Your task to perform on an android device: open app "Upside-Cash back on gas & food" Image 0: 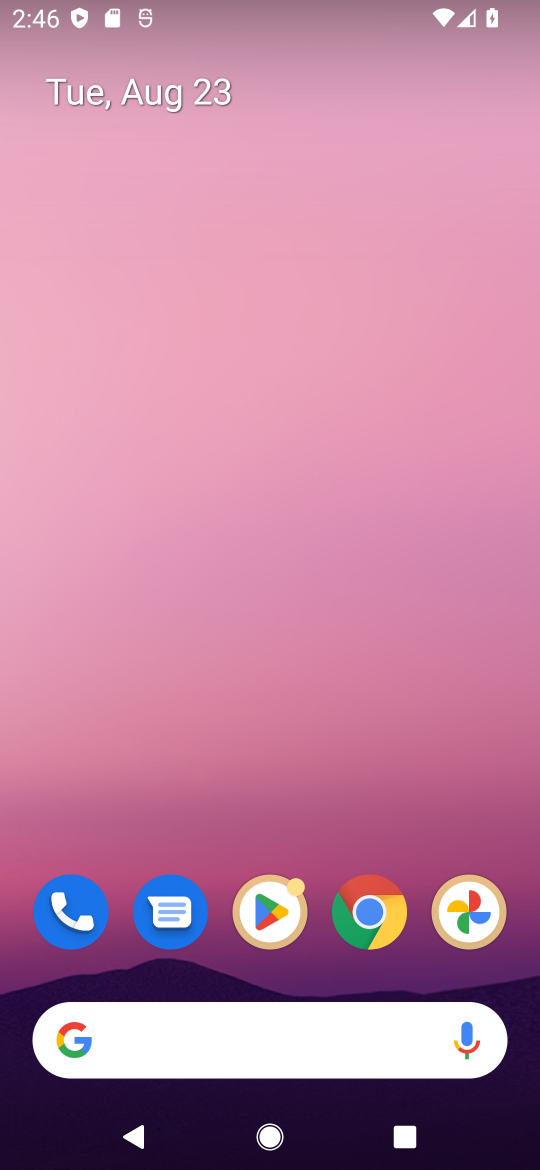
Step 0: drag from (195, 1054) to (295, 196)
Your task to perform on an android device: open app "Upside-Cash back on gas & food" Image 1: 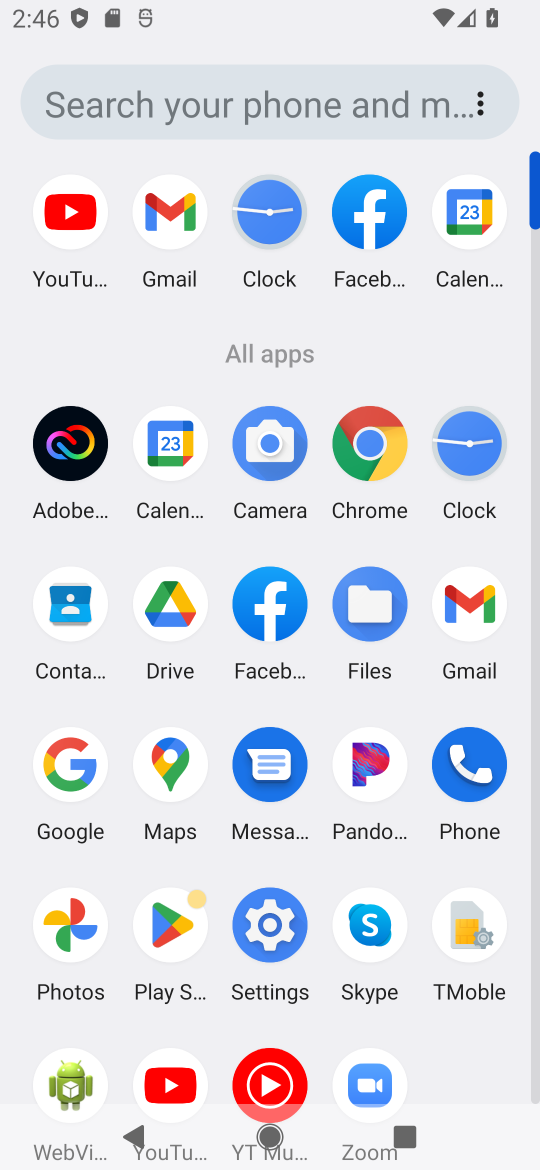
Step 1: click (175, 923)
Your task to perform on an android device: open app "Upside-Cash back on gas & food" Image 2: 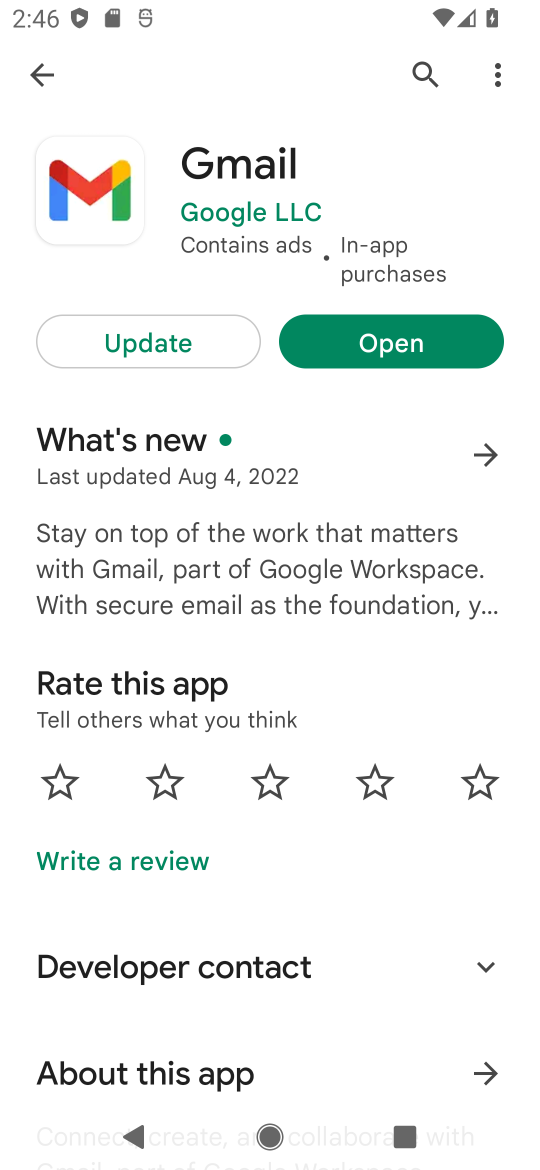
Step 2: press back button
Your task to perform on an android device: open app "Upside-Cash back on gas & food" Image 3: 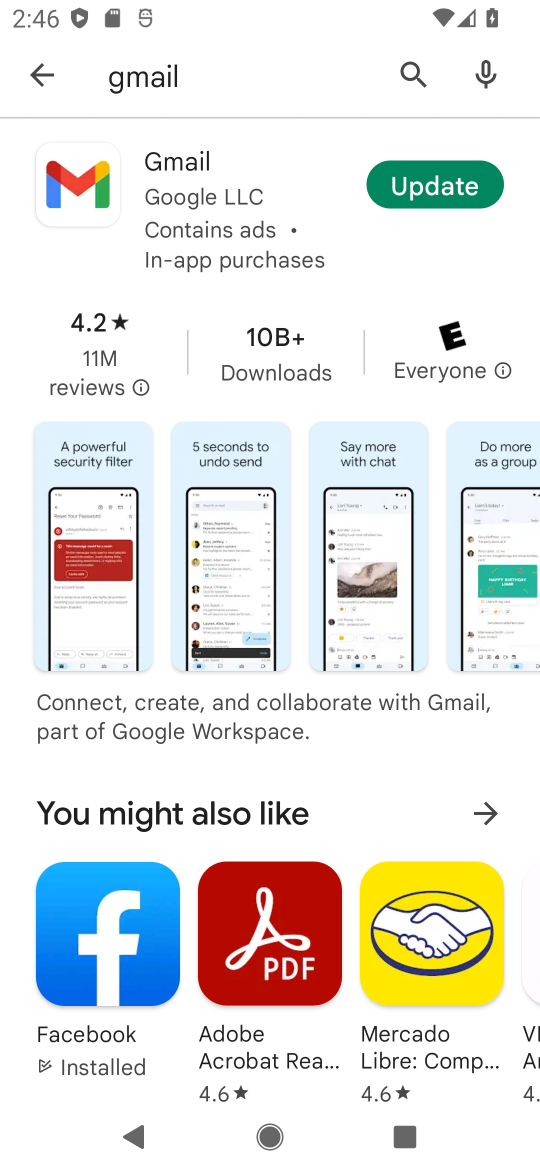
Step 3: press back button
Your task to perform on an android device: open app "Upside-Cash back on gas & food" Image 4: 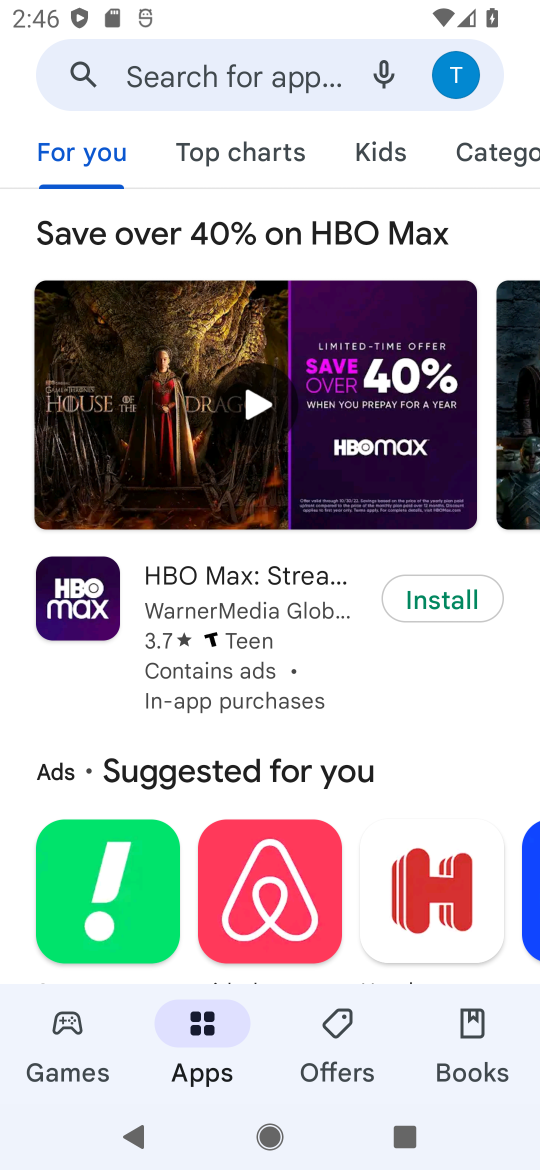
Step 4: click (249, 73)
Your task to perform on an android device: open app "Upside-Cash back on gas & food" Image 5: 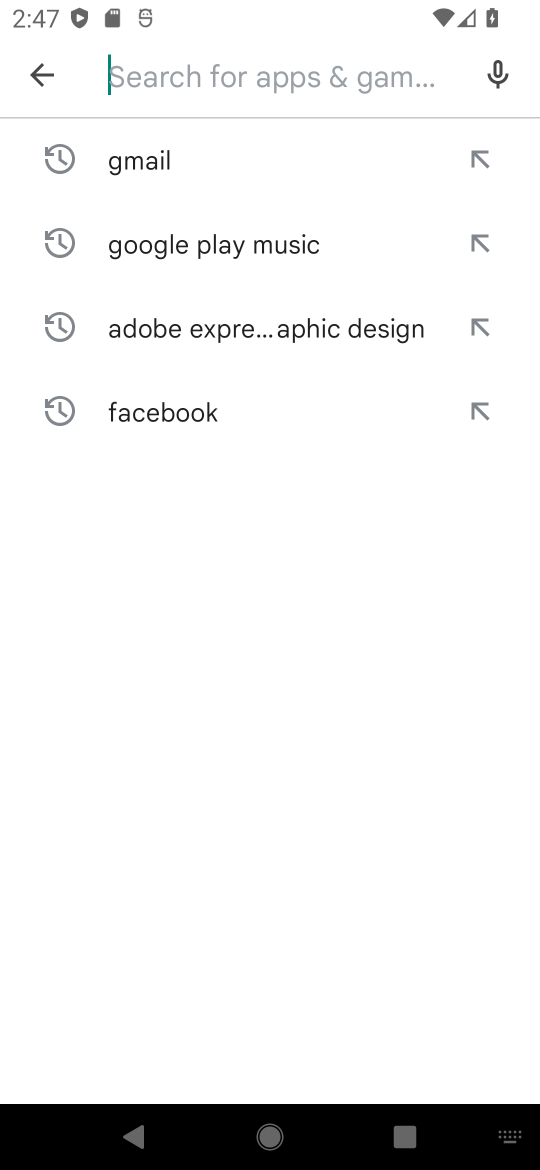
Step 5: type "Upside-Cash back on gas & food"
Your task to perform on an android device: open app "Upside-Cash back on gas & food" Image 6: 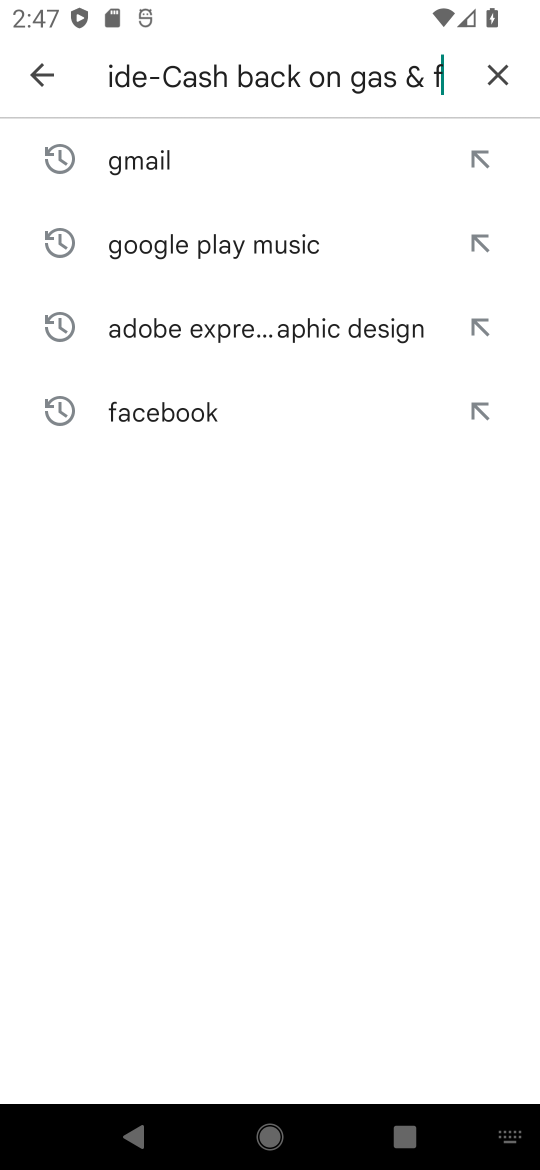
Step 6: type ""
Your task to perform on an android device: open app "Upside-Cash back on gas & food" Image 7: 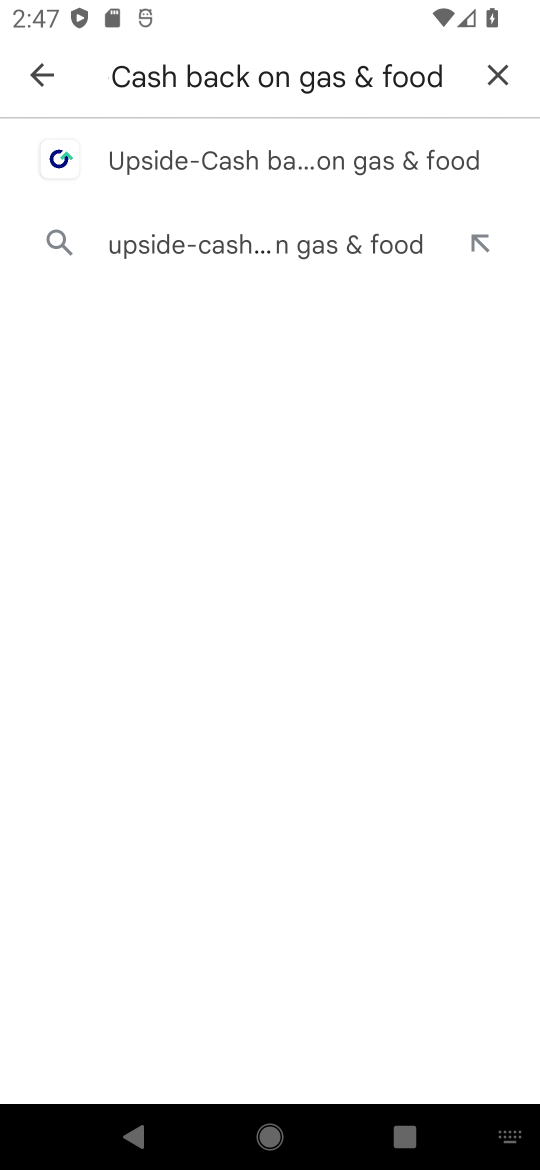
Step 7: click (309, 171)
Your task to perform on an android device: open app "Upside-Cash back on gas & food" Image 8: 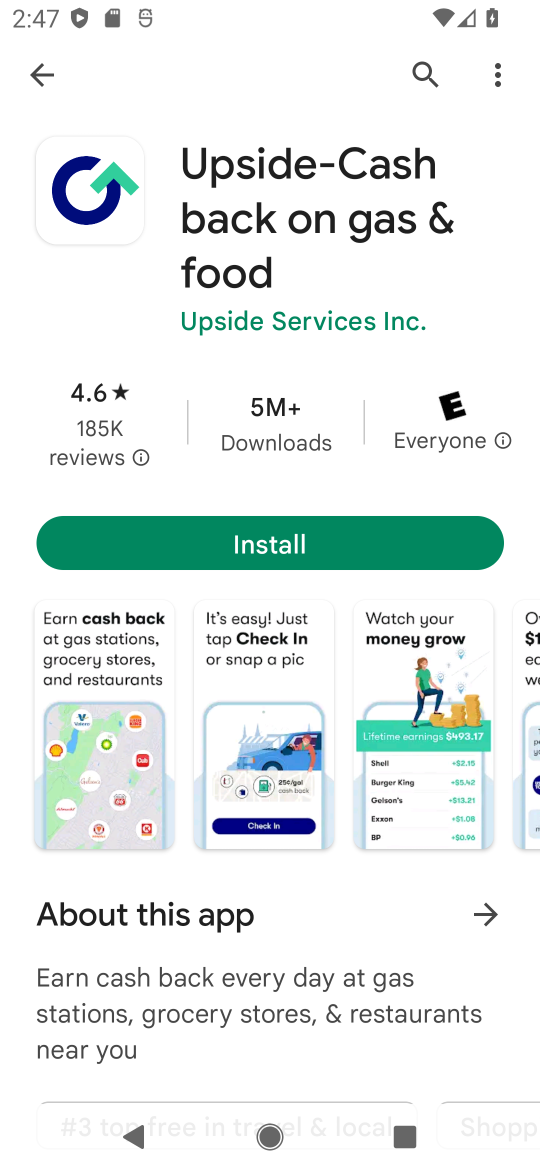
Step 8: task complete